Your task to perform on an android device: What's the weather? Image 0: 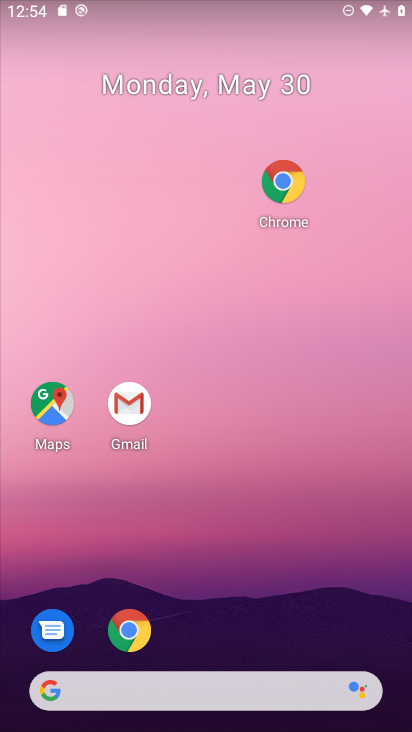
Step 0: drag from (10, 260) to (398, 475)
Your task to perform on an android device: What's the weather? Image 1: 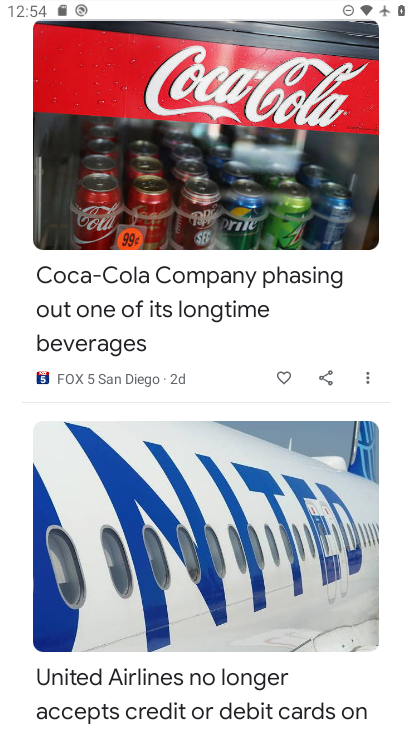
Step 1: drag from (197, 126) to (239, 488)
Your task to perform on an android device: What's the weather? Image 2: 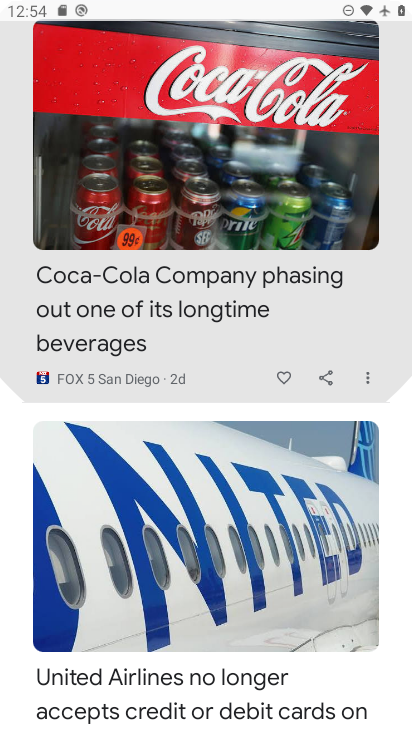
Step 2: drag from (222, 214) to (222, 467)
Your task to perform on an android device: What's the weather? Image 3: 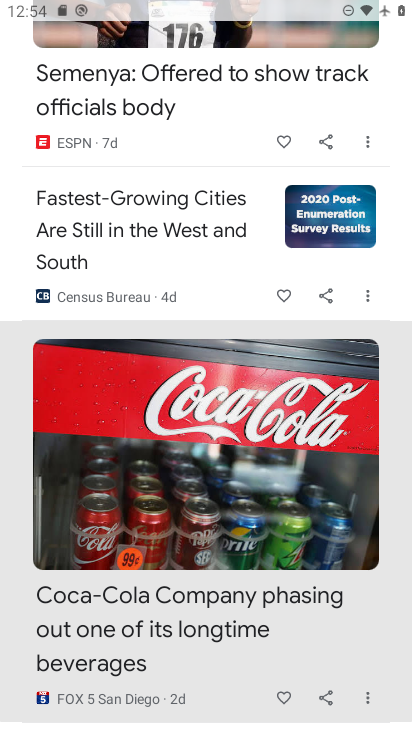
Step 3: click (175, 438)
Your task to perform on an android device: What's the weather? Image 4: 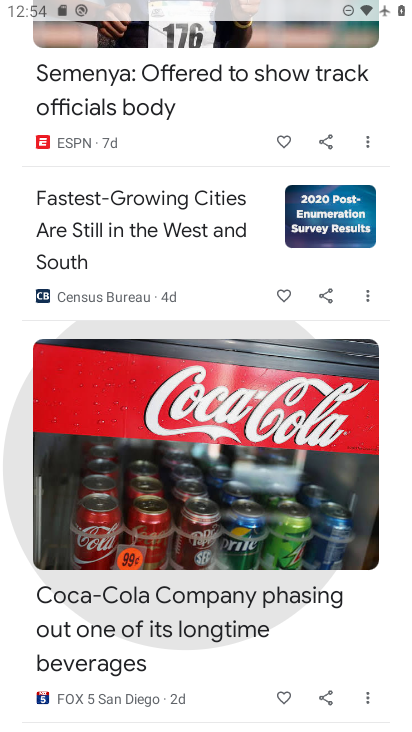
Step 4: drag from (178, 269) to (202, 528)
Your task to perform on an android device: What's the weather? Image 5: 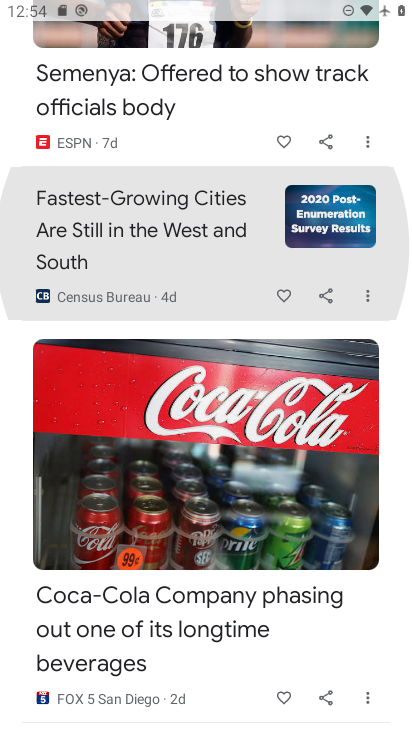
Step 5: drag from (195, 220) to (195, 485)
Your task to perform on an android device: What's the weather? Image 6: 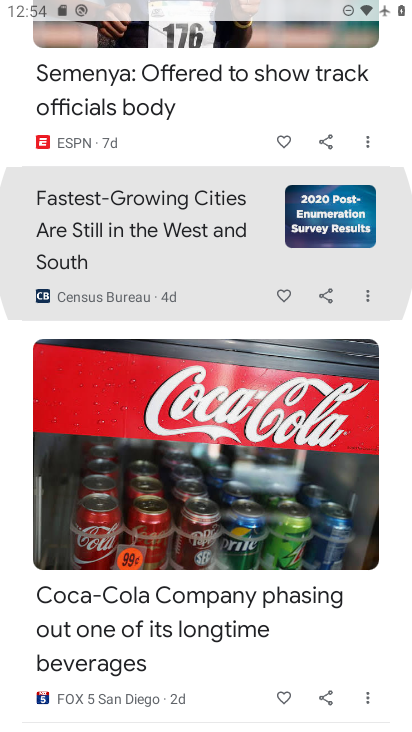
Step 6: drag from (173, 205) to (190, 503)
Your task to perform on an android device: What's the weather? Image 7: 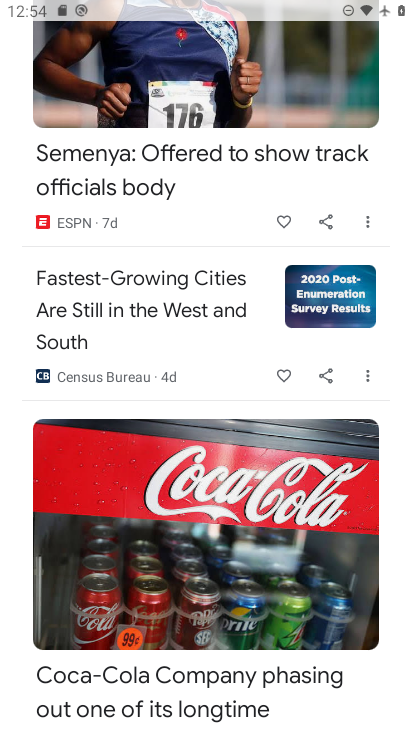
Step 7: drag from (123, 184) to (123, 504)
Your task to perform on an android device: What's the weather? Image 8: 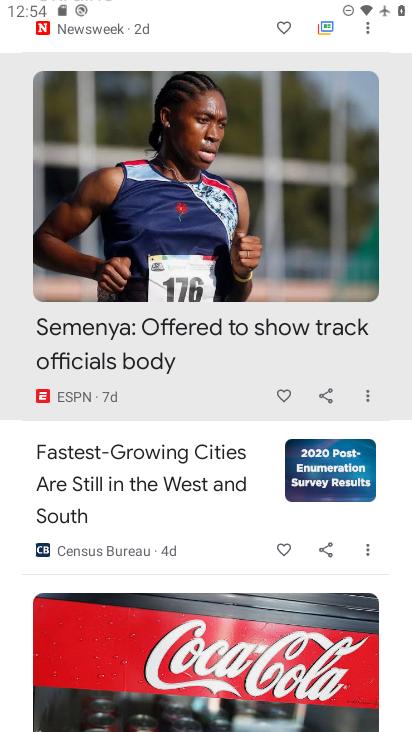
Step 8: click (125, 548)
Your task to perform on an android device: What's the weather? Image 9: 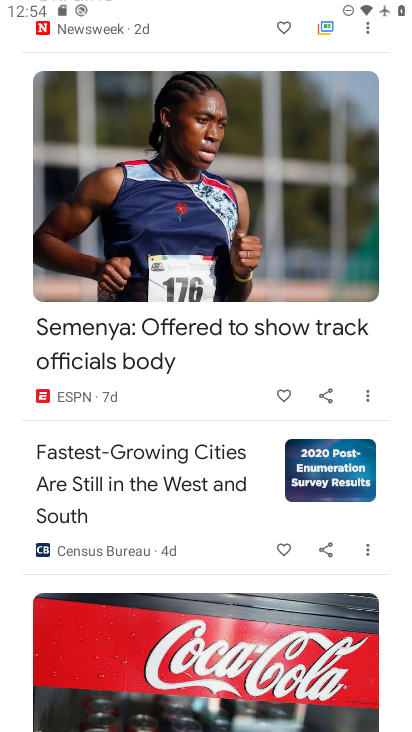
Step 9: drag from (127, 226) to (125, 606)
Your task to perform on an android device: What's the weather? Image 10: 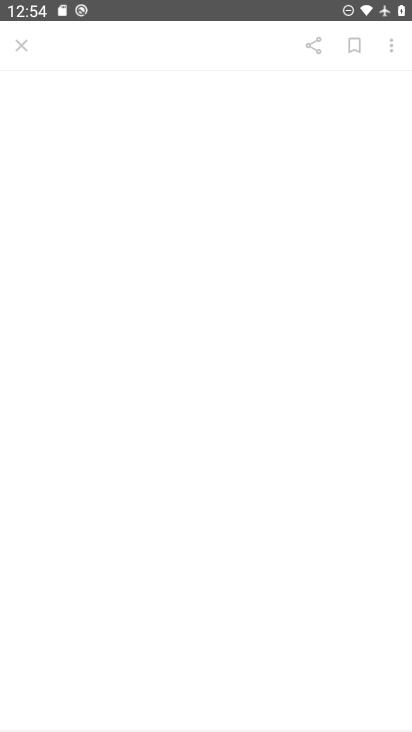
Step 10: drag from (120, 408) to (160, 651)
Your task to perform on an android device: What's the weather? Image 11: 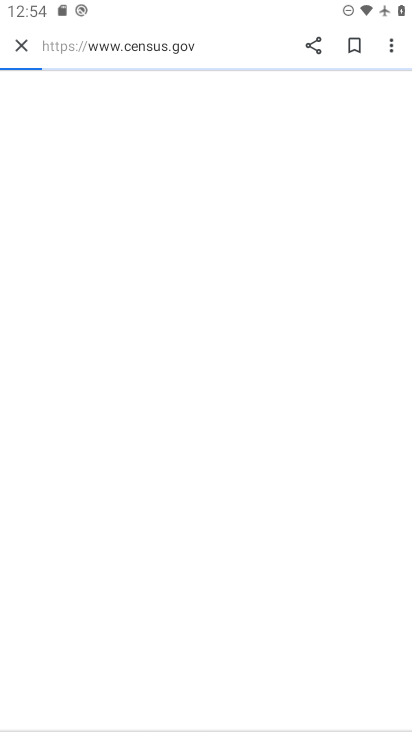
Step 11: drag from (114, 308) to (114, 625)
Your task to perform on an android device: What's the weather? Image 12: 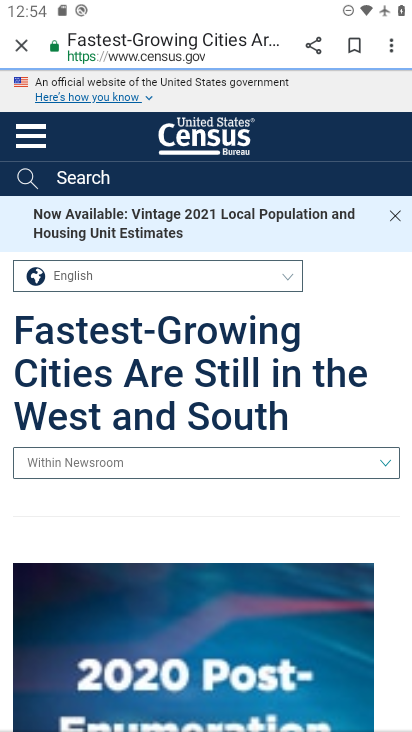
Step 12: click (21, 45)
Your task to perform on an android device: What's the weather? Image 13: 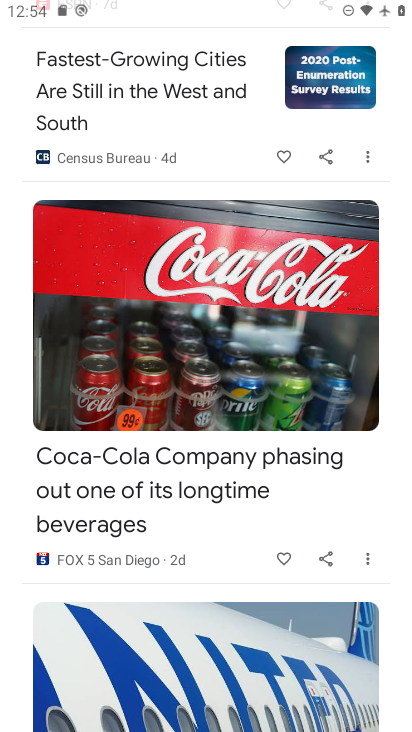
Step 13: task complete